Your task to perform on an android device: change notification settings in the gmail app Image 0: 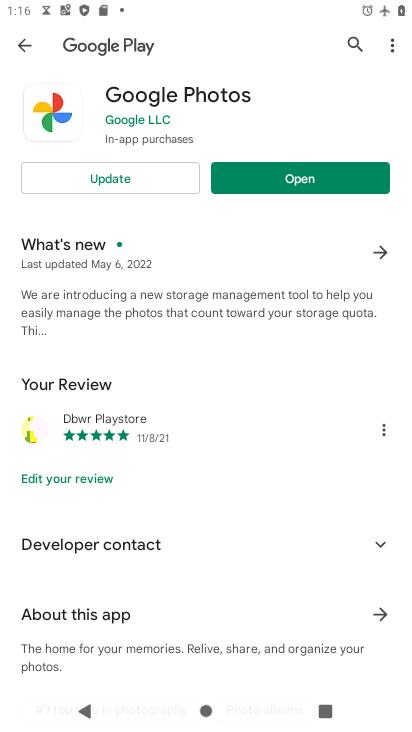
Step 0: press home button
Your task to perform on an android device: change notification settings in the gmail app Image 1: 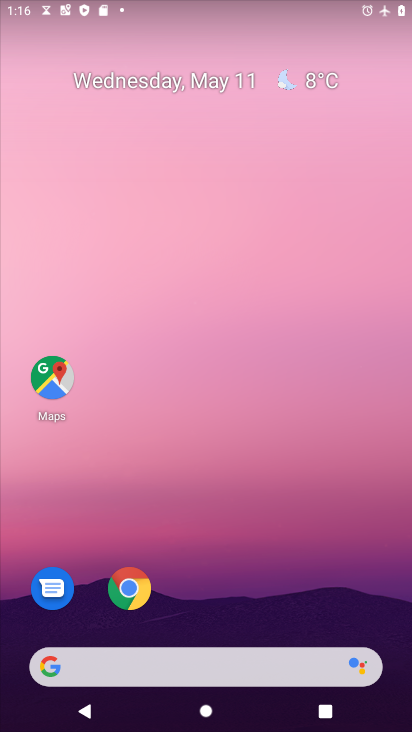
Step 1: drag from (336, 634) to (270, 68)
Your task to perform on an android device: change notification settings in the gmail app Image 2: 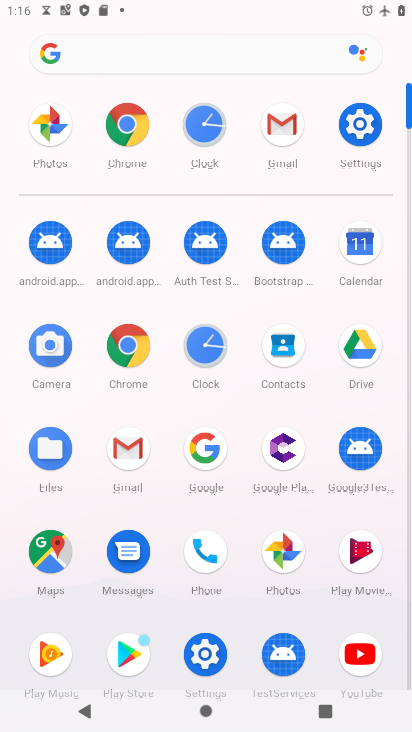
Step 2: click (279, 136)
Your task to perform on an android device: change notification settings in the gmail app Image 3: 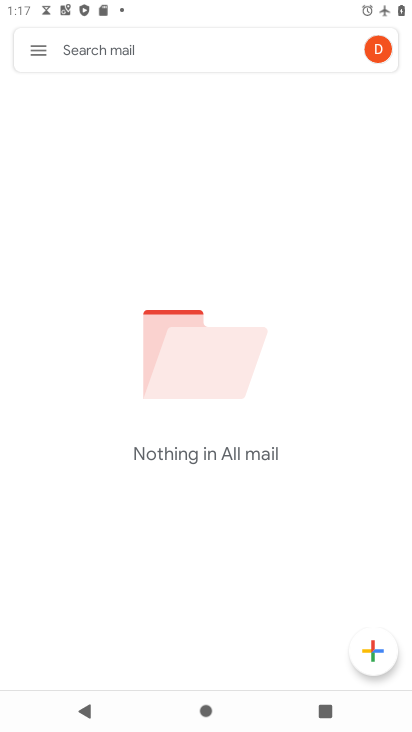
Step 3: click (33, 49)
Your task to perform on an android device: change notification settings in the gmail app Image 4: 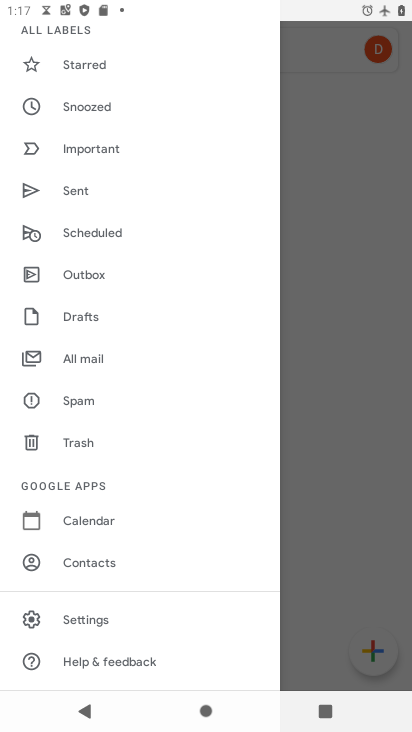
Step 4: click (95, 624)
Your task to perform on an android device: change notification settings in the gmail app Image 5: 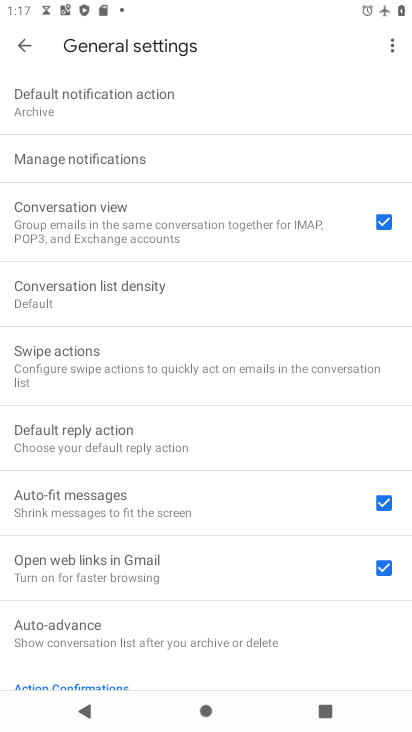
Step 5: click (98, 159)
Your task to perform on an android device: change notification settings in the gmail app Image 6: 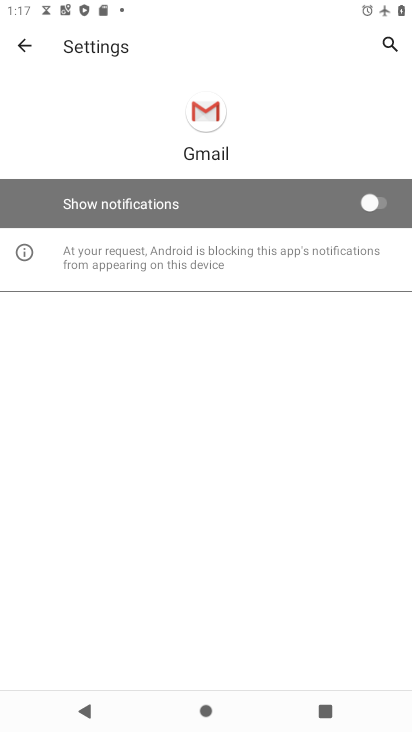
Step 6: click (374, 201)
Your task to perform on an android device: change notification settings in the gmail app Image 7: 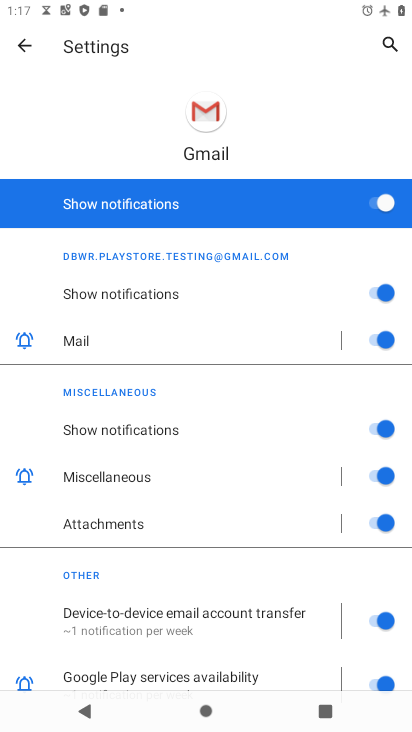
Step 7: task complete